Your task to perform on an android device: check google app version Image 0: 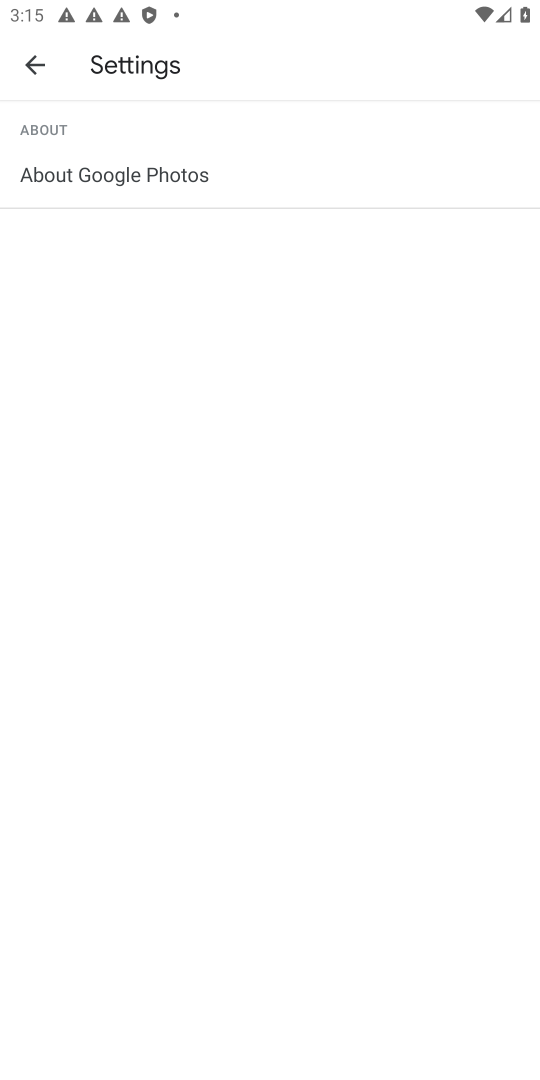
Step 0: press home button
Your task to perform on an android device: check google app version Image 1: 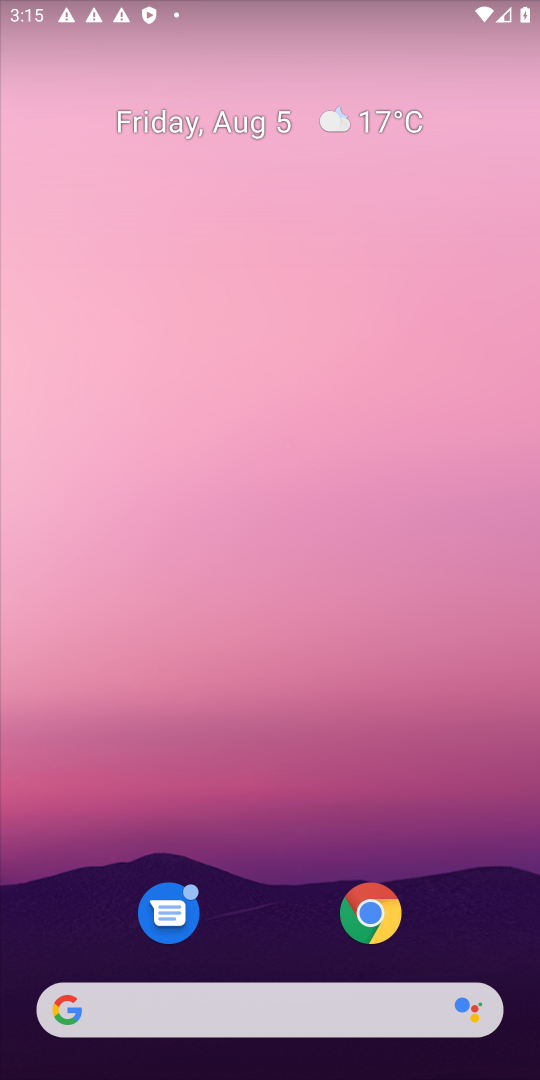
Step 1: drag from (227, 1003) to (468, 166)
Your task to perform on an android device: check google app version Image 2: 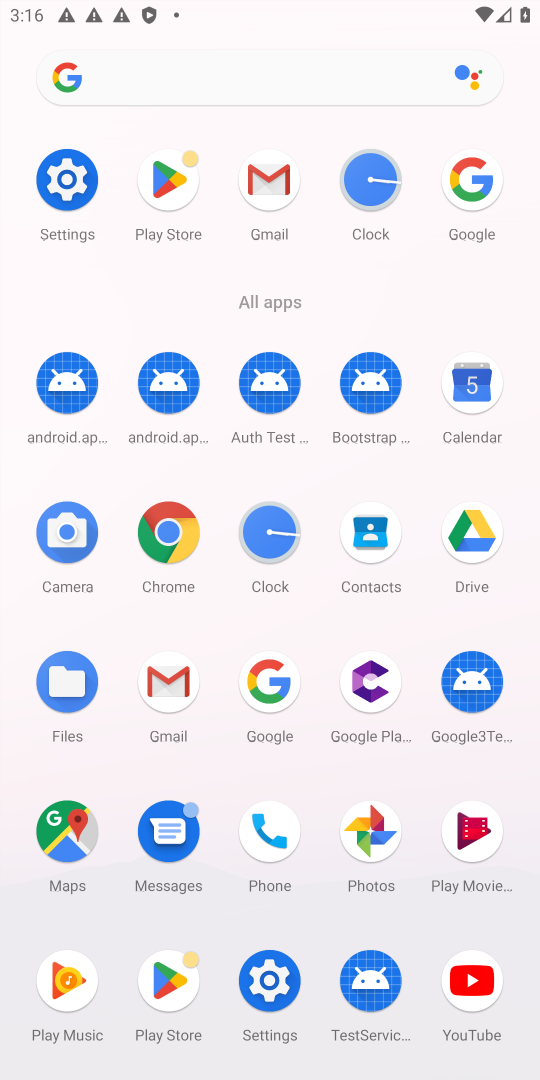
Step 2: click (273, 681)
Your task to perform on an android device: check google app version Image 3: 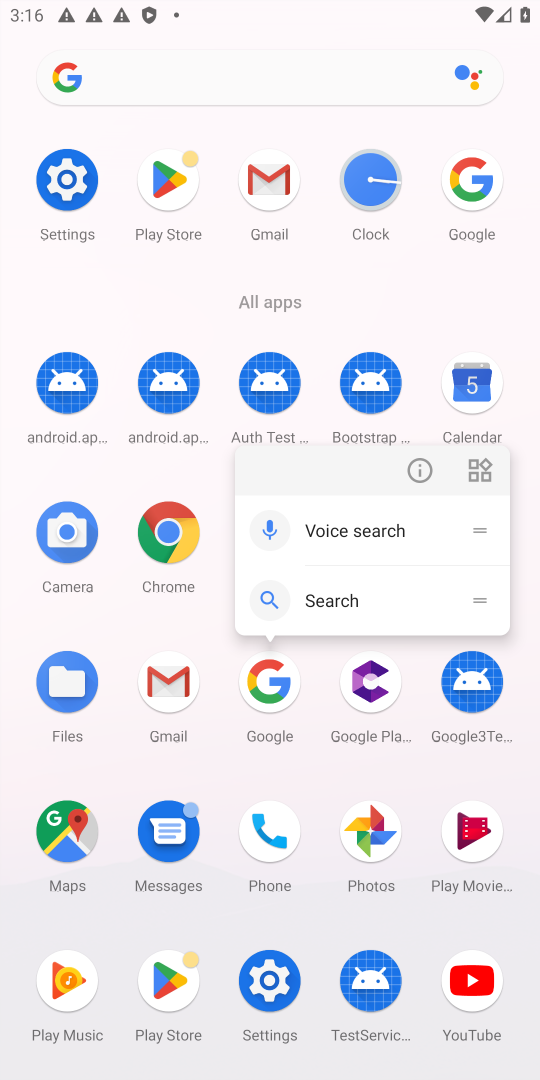
Step 3: click (413, 475)
Your task to perform on an android device: check google app version Image 4: 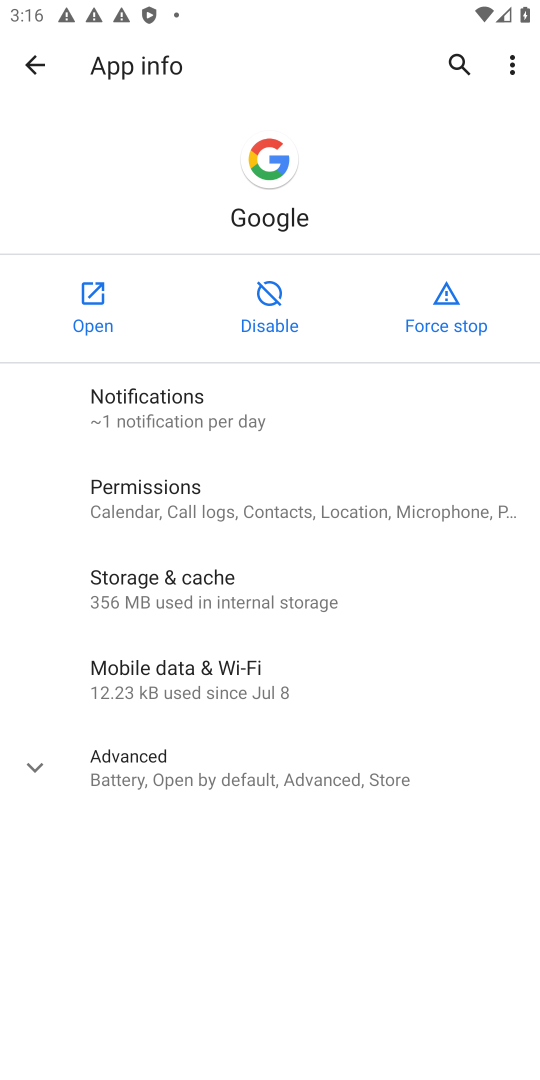
Step 4: click (146, 757)
Your task to perform on an android device: check google app version Image 5: 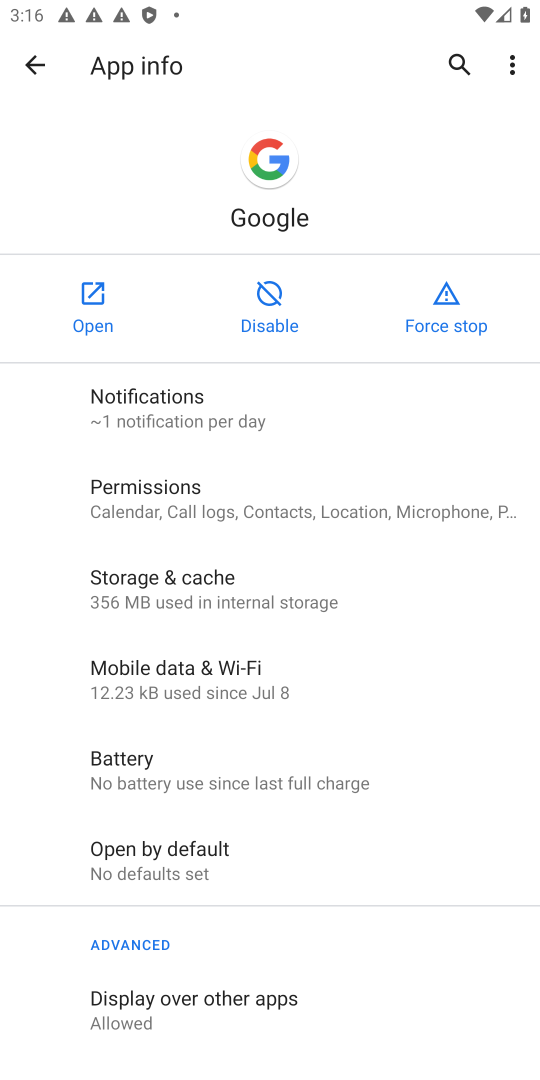
Step 5: task complete